Your task to perform on an android device: Do I have any events today? Image 0: 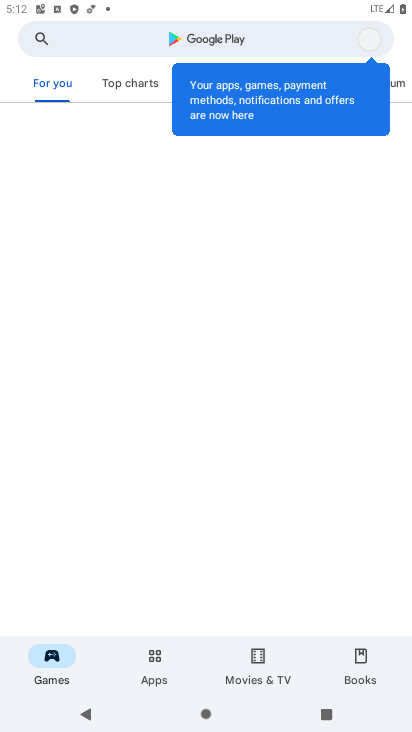
Step 0: press home button
Your task to perform on an android device: Do I have any events today? Image 1: 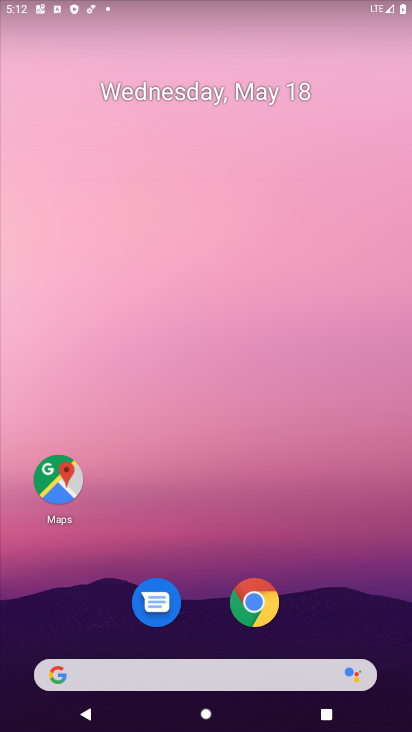
Step 1: drag from (148, 681) to (135, 91)
Your task to perform on an android device: Do I have any events today? Image 2: 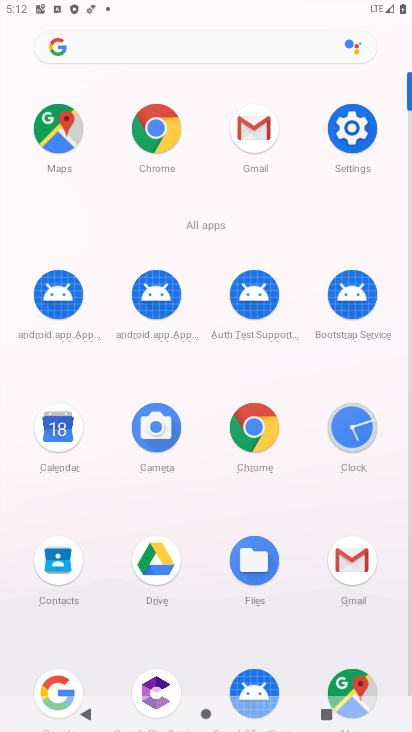
Step 2: drag from (315, 608) to (312, 354)
Your task to perform on an android device: Do I have any events today? Image 3: 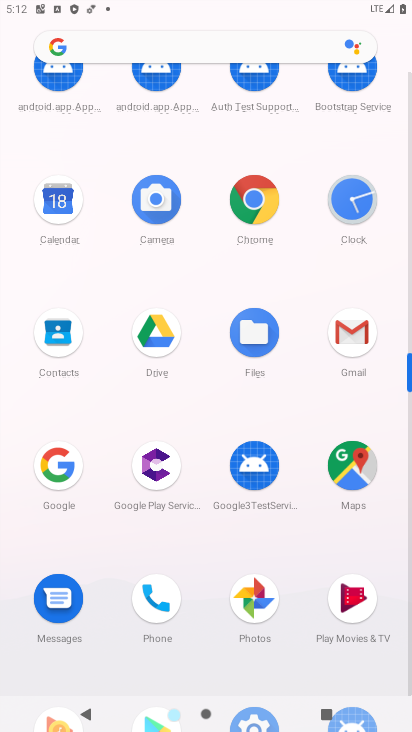
Step 3: click (69, 204)
Your task to perform on an android device: Do I have any events today? Image 4: 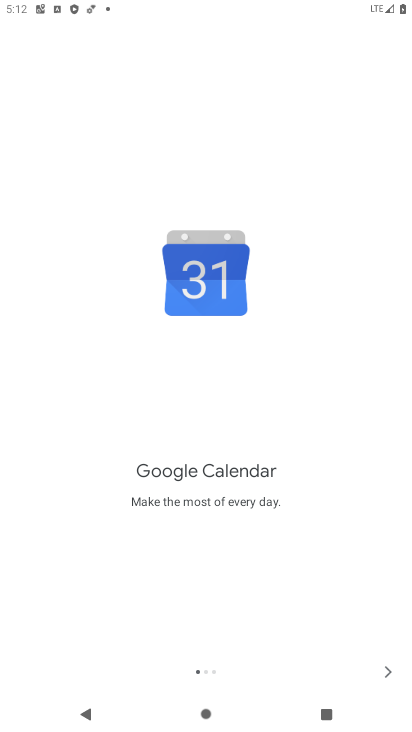
Step 4: click (388, 665)
Your task to perform on an android device: Do I have any events today? Image 5: 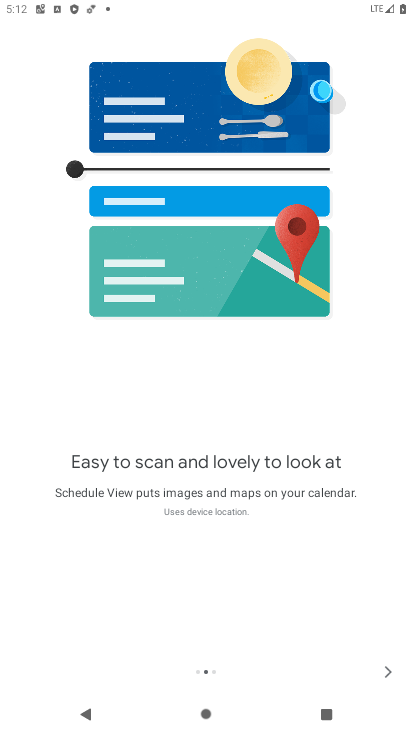
Step 5: click (388, 665)
Your task to perform on an android device: Do I have any events today? Image 6: 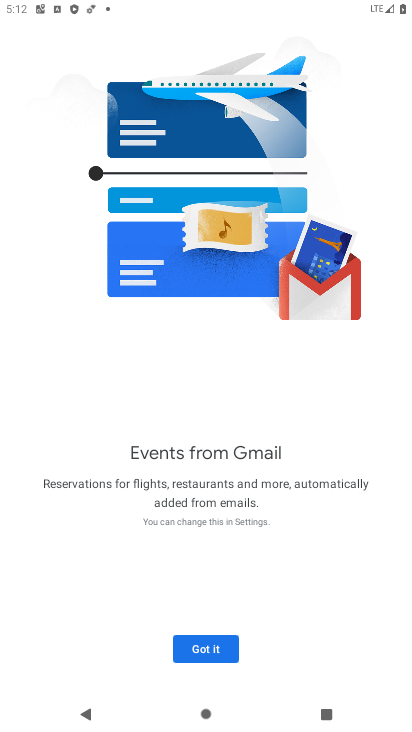
Step 6: click (208, 647)
Your task to perform on an android device: Do I have any events today? Image 7: 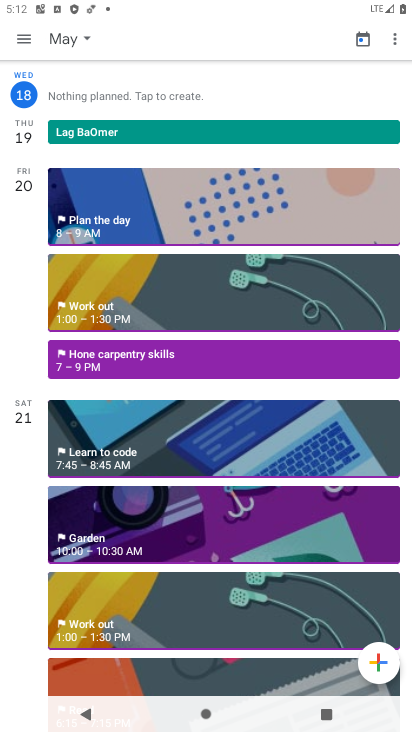
Step 7: click (83, 40)
Your task to perform on an android device: Do I have any events today? Image 8: 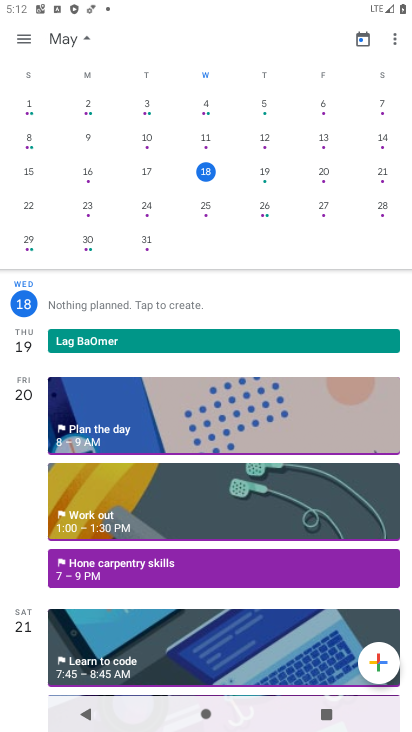
Step 8: click (198, 170)
Your task to perform on an android device: Do I have any events today? Image 9: 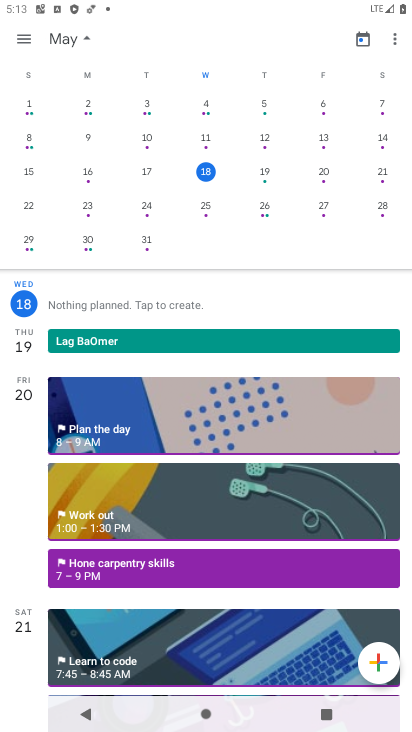
Step 9: task complete